Your task to perform on an android device: Open Google Chrome and click the shortcut for Amazon.com Image 0: 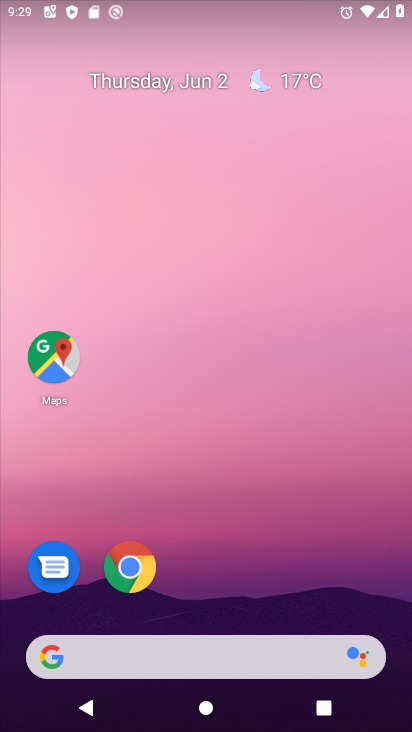
Step 0: click (136, 567)
Your task to perform on an android device: Open Google Chrome and click the shortcut for Amazon.com Image 1: 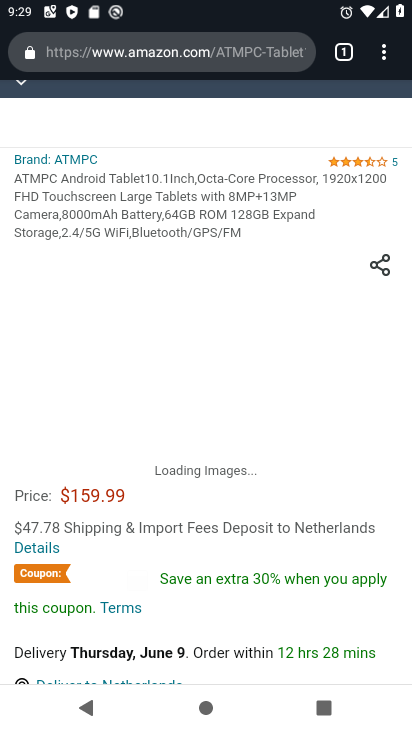
Step 1: click (384, 47)
Your task to perform on an android device: Open Google Chrome and click the shortcut for Amazon.com Image 2: 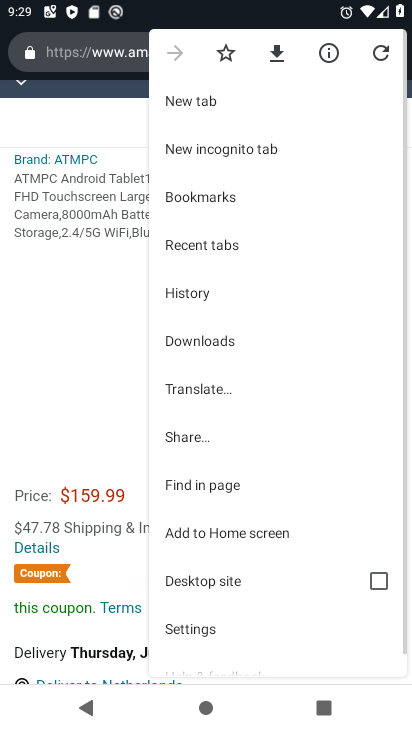
Step 2: click (214, 109)
Your task to perform on an android device: Open Google Chrome and click the shortcut for Amazon.com Image 3: 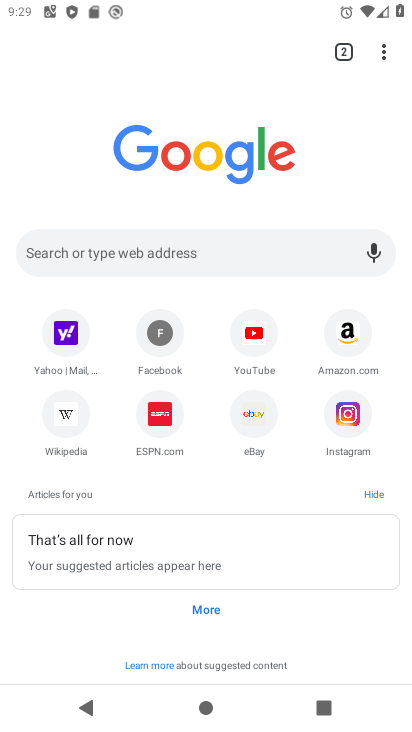
Step 3: click (348, 339)
Your task to perform on an android device: Open Google Chrome and click the shortcut for Amazon.com Image 4: 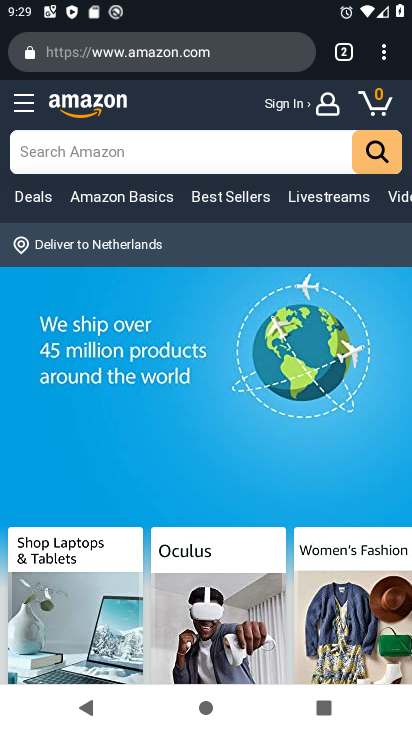
Step 4: task complete